Your task to perform on an android device: Go to location settings Image 0: 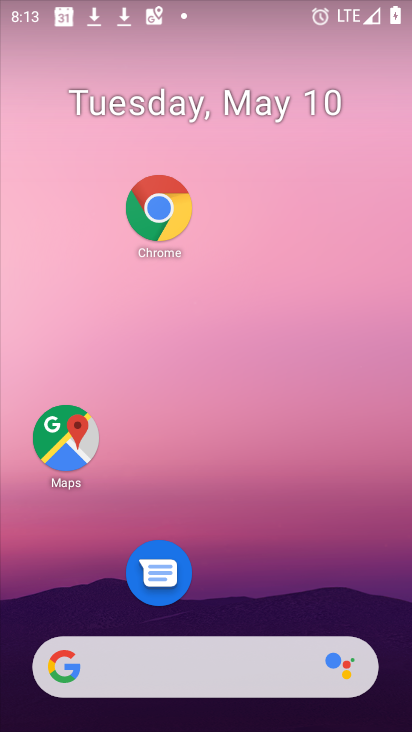
Step 0: drag from (277, 692) to (361, 131)
Your task to perform on an android device: Go to location settings Image 1: 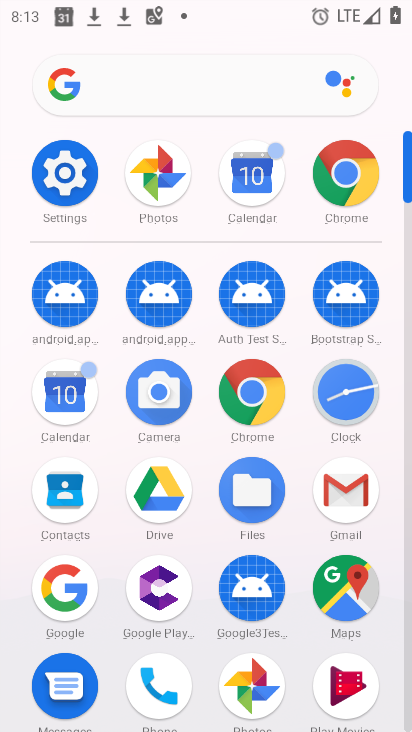
Step 1: click (51, 163)
Your task to perform on an android device: Go to location settings Image 2: 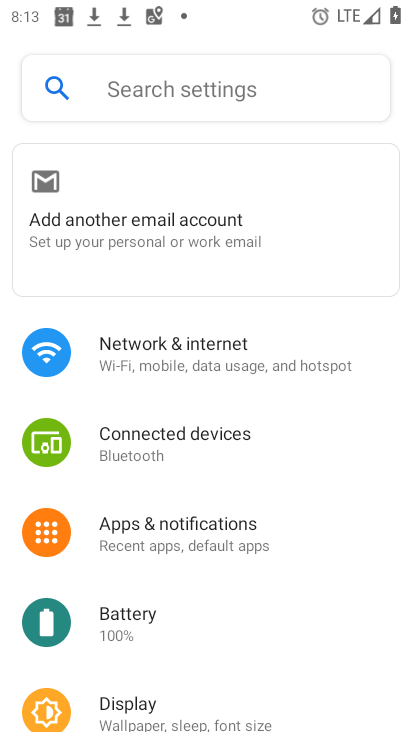
Step 2: click (186, 83)
Your task to perform on an android device: Go to location settings Image 3: 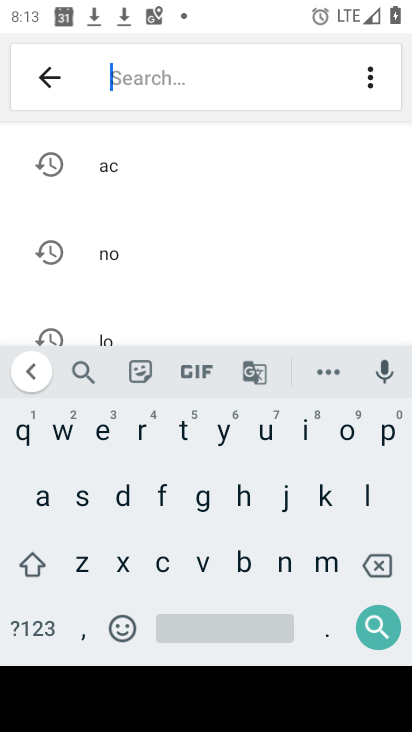
Step 3: click (365, 496)
Your task to perform on an android device: Go to location settings Image 4: 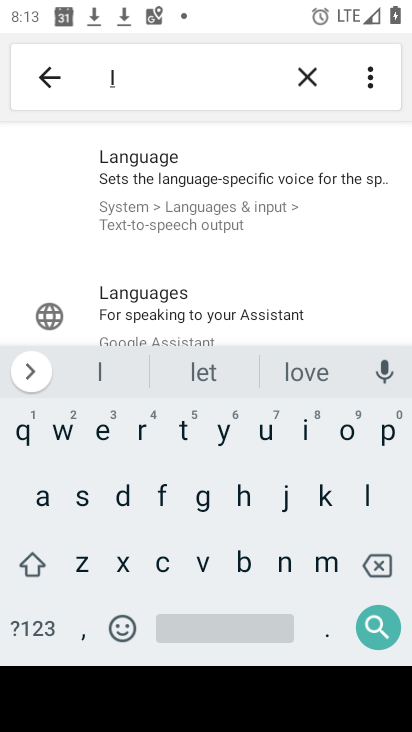
Step 4: click (340, 435)
Your task to perform on an android device: Go to location settings Image 5: 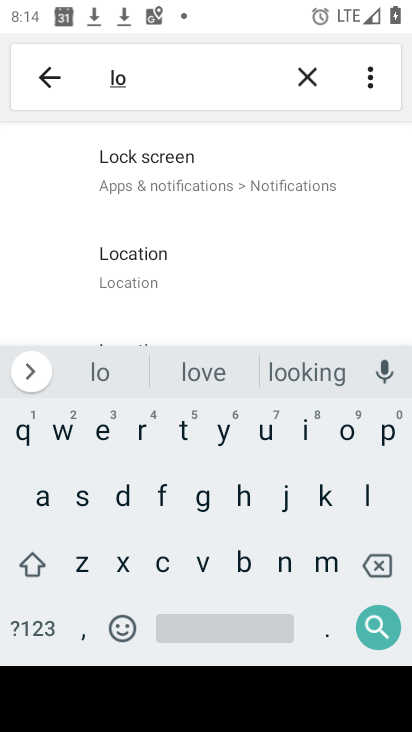
Step 5: click (144, 264)
Your task to perform on an android device: Go to location settings Image 6: 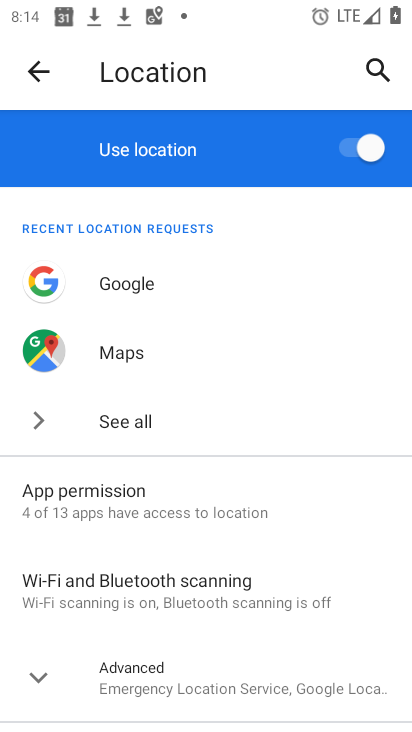
Step 6: task complete